Your task to perform on an android device: When is my next meeting? Image 0: 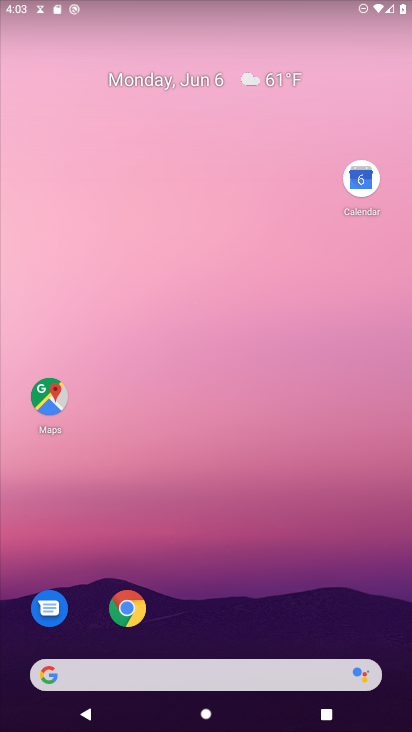
Step 0: drag from (206, 564) to (139, 16)
Your task to perform on an android device: When is my next meeting? Image 1: 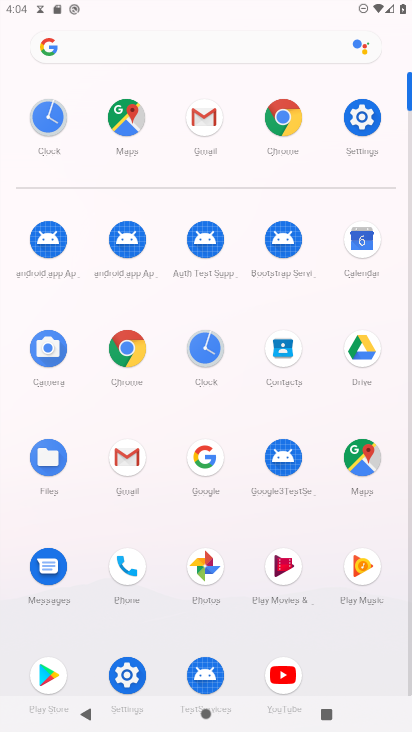
Step 1: click (365, 251)
Your task to perform on an android device: When is my next meeting? Image 2: 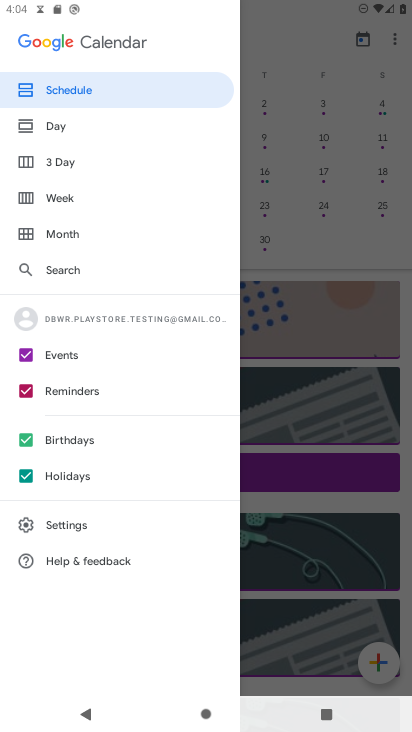
Step 2: click (301, 311)
Your task to perform on an android device: When is my next meeting? Image 3: 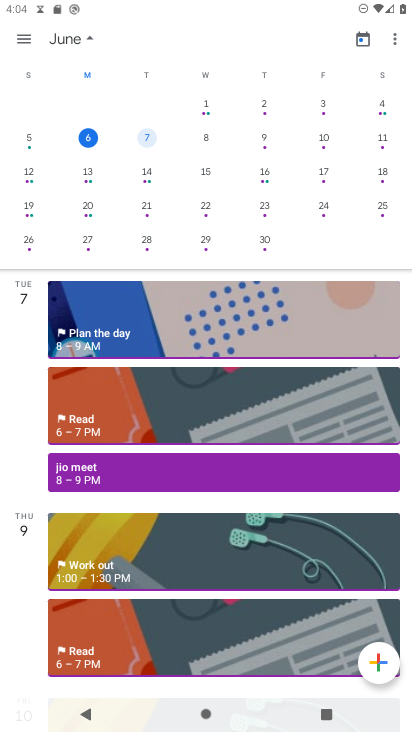
Step 3: task complete